Your task to perform on an android device: Open Chrome and go to settings Image 0: 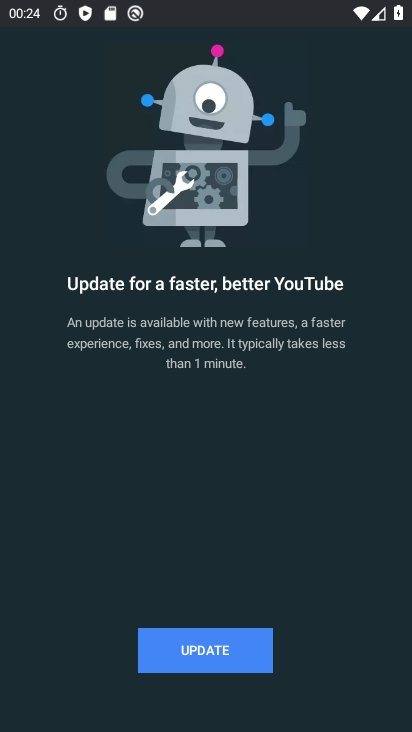
Step 0: press home button
Your task to perform on an android device: Open Chrome and go to settings Image 1: 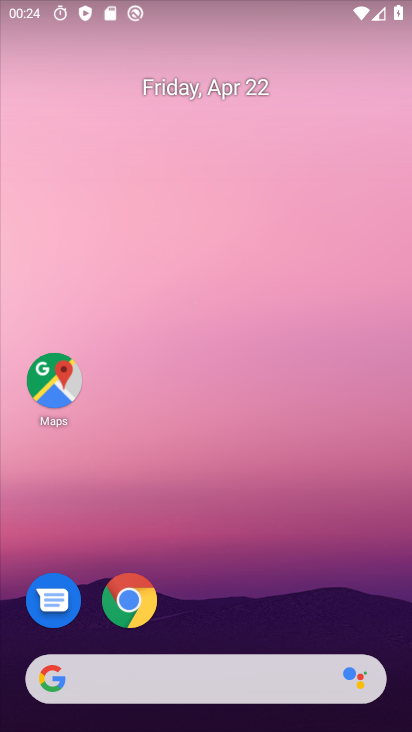
Step 1: click (127, 601)
Your task to perform on an android device: Open Chrome and go to settings Image 2: 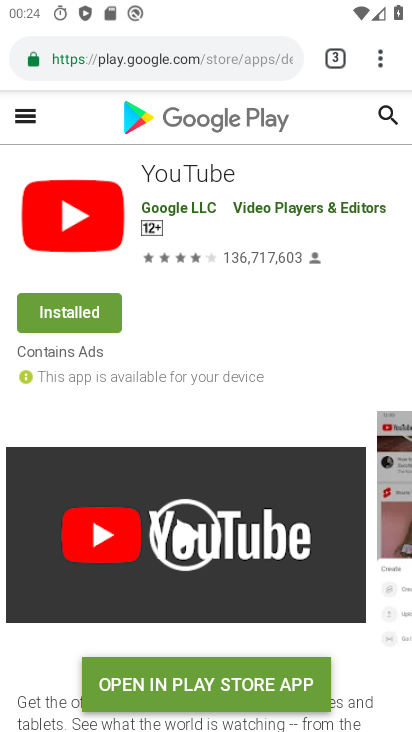
Step 2: click (384, 48)
Your task to perform on an android device: Open Chrome and go to settings Image 3: 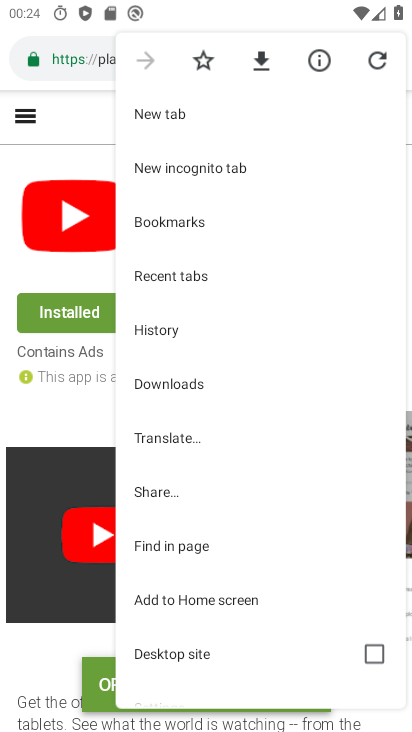
Step 3: drag from (234, 474) to (249, 262)
Your task to perform on an android device: Open Chrome and go to settings Image 4: 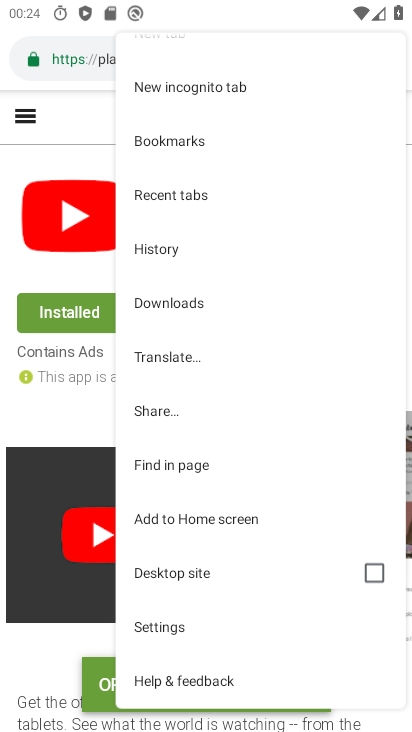
Step 4: click (205, 619)
Your task to perform on an android device: Open Chrome and go to settings Image 5: 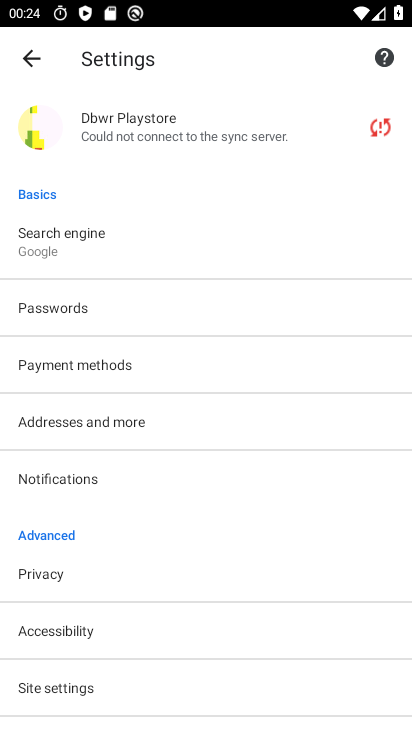
Step 5: task complete